Your task to perform on an android device: Open wifi settings Image 0: 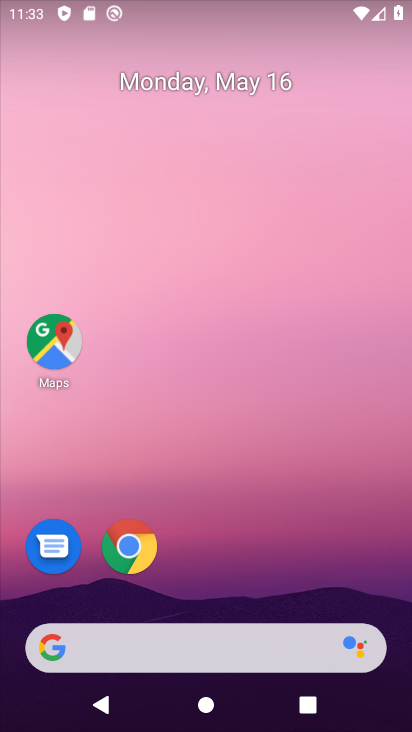
Step 0: drag from (409, 634) to (342, 96)
Your task to perform on an android device: Open wifi settings Image 1: 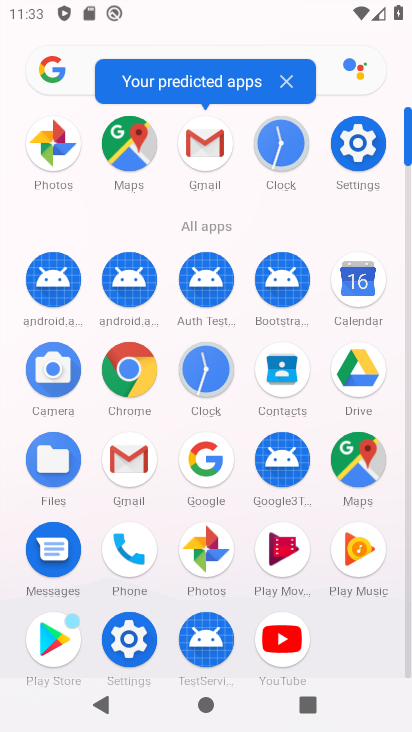
Step 1: click (408, 665)
Your task to perform on an android device: Open wifi settings Image 2: 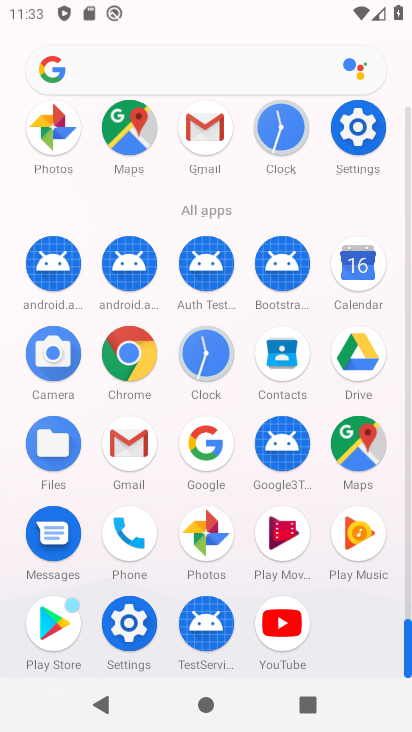
Step 2: click (122, 620)
Your task to perform on an android device: Open wifi settings Image 3: 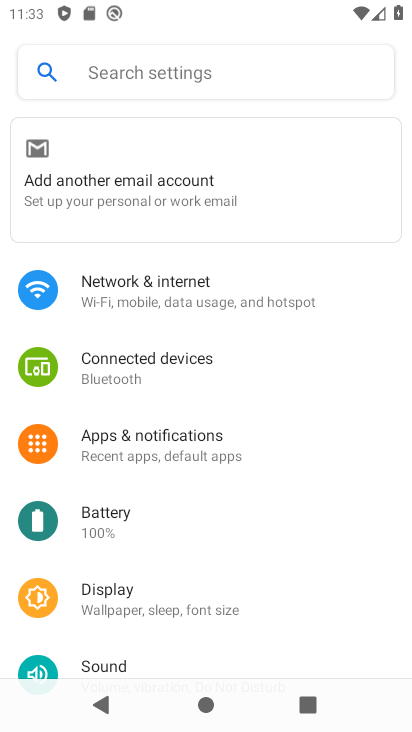
Step 3: click (137, 297)
Your task to perform on an android device: Open wifi settings Image 4: 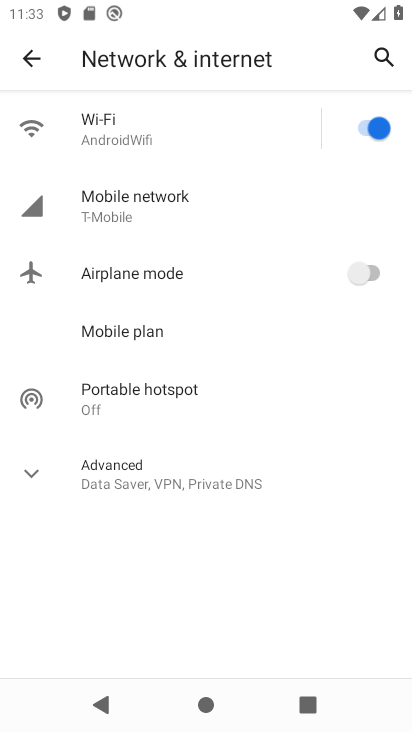
Step 4: click (93, 126)
Your task to perform on an android device: Open wifi settings Image 5: 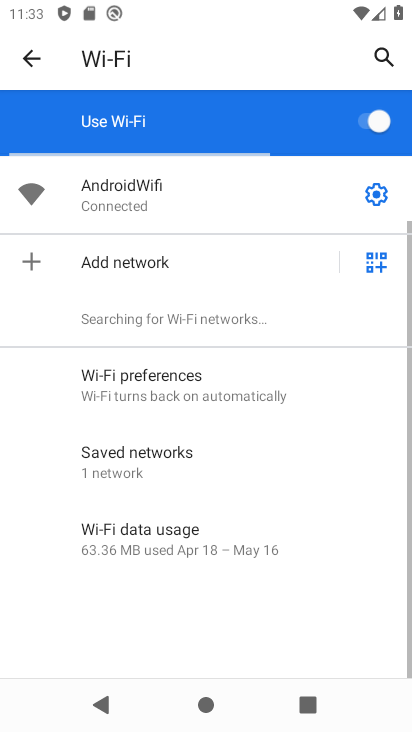
Step 5: click (373, 192)
Your task to perform on an android device: Open wifi settings Image 6: 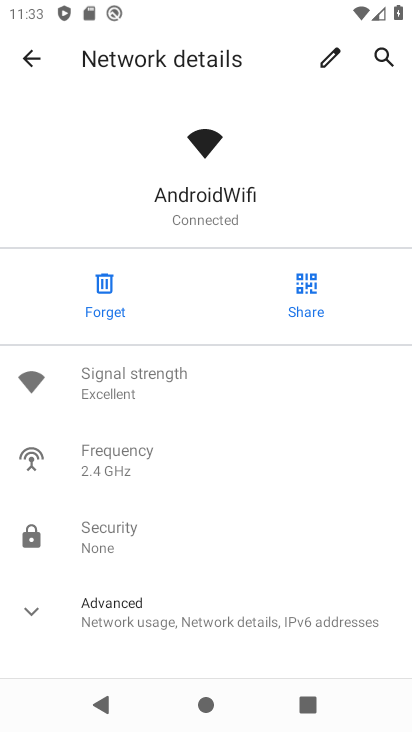
Step 6: drag from (263, 530) to (229, 151)
Your task to perform on an android device: Open wifi settings Image 7: 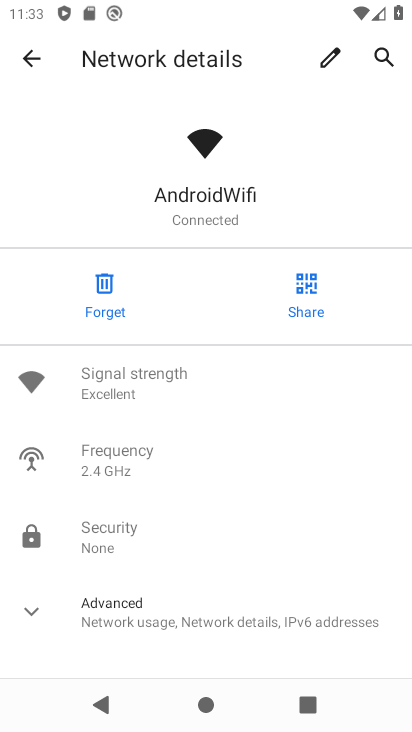
Step 7: click (28, 611)
Your task to perform on an android device: Open wifi settings Image 8: 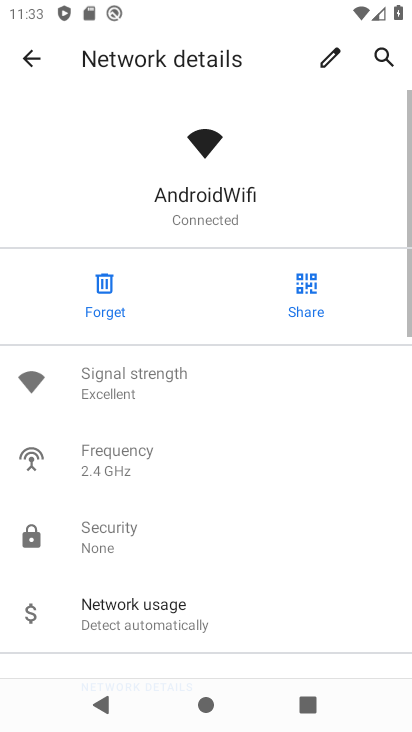
Step 8: task complete